Your task to perform on an android device: check data usage Image 0: 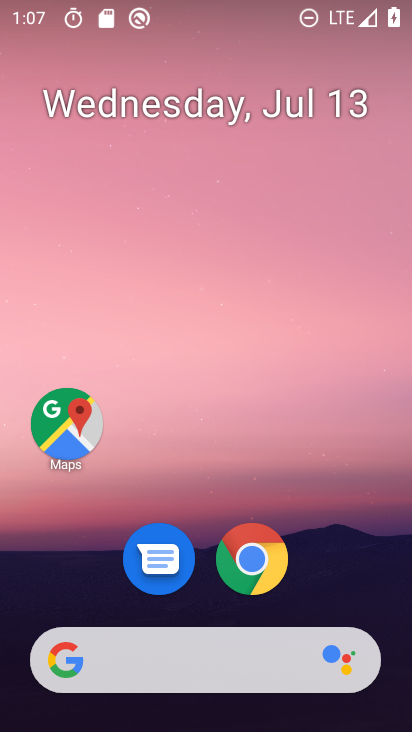
Step 0: drag from (259, 655) to (296, 114)
Your task to perform on an android device: check data usage Image 1: 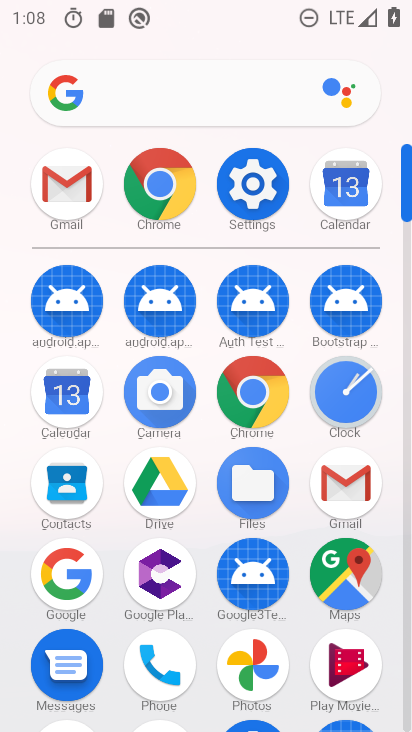
Step 1: click (255, 192)
Your task to perform on an android device: check data usage Image 2: 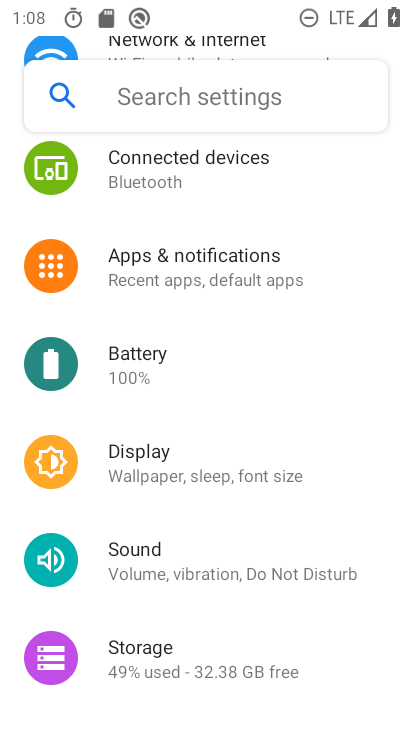
Step 2: drag from (213, 207) to (156, 650)
Your task to perform on an android device: check data usage Image 3: 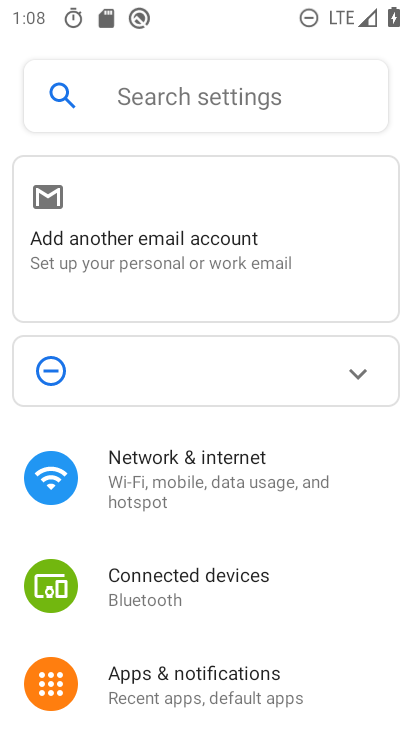
Step 3: drag from (186, 296) to (156, 478)
Your task to perform on an android device: check data usage Image 4: 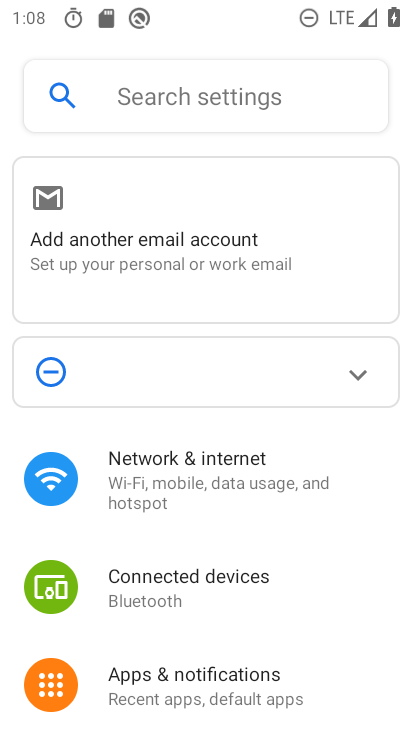
Step 4: click (214, 497)
Your task to perform on an android device: check data usage Image 5: 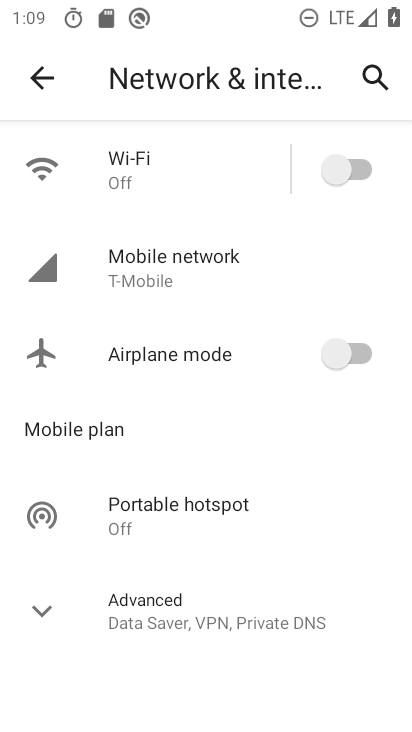
Step 5: click (193, 276)
Your task to perform on an android device: check data usage Image 6: 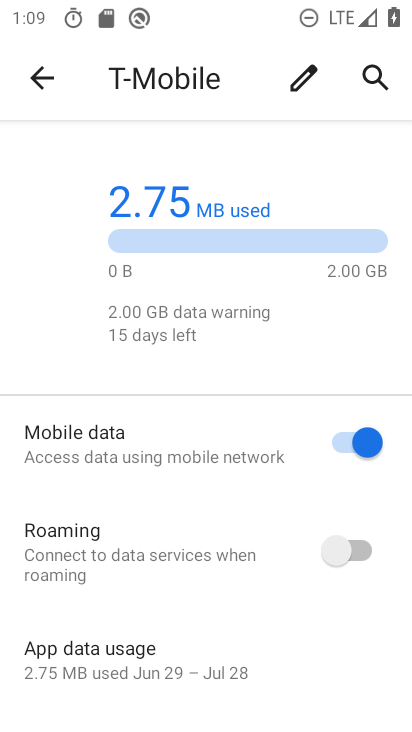
Step 6: drag from (154, 568) to (219, 316)
Your task to perform on an android device: check data usage Image 7: 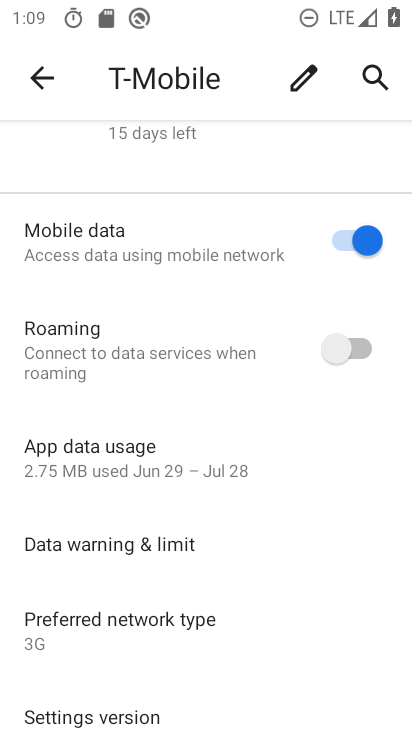
Step 7: click (148, 462)
Your task to perform on an android device: check data usage Image 8: 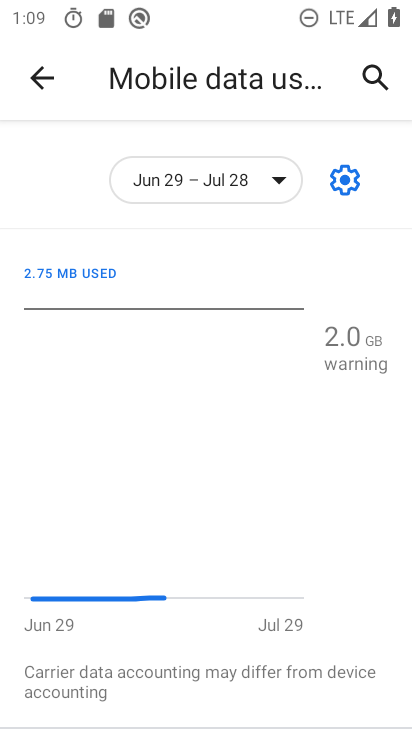
Step 8: task complete